Your task to perform on an android device: Open settings on Google Maps Image 0: 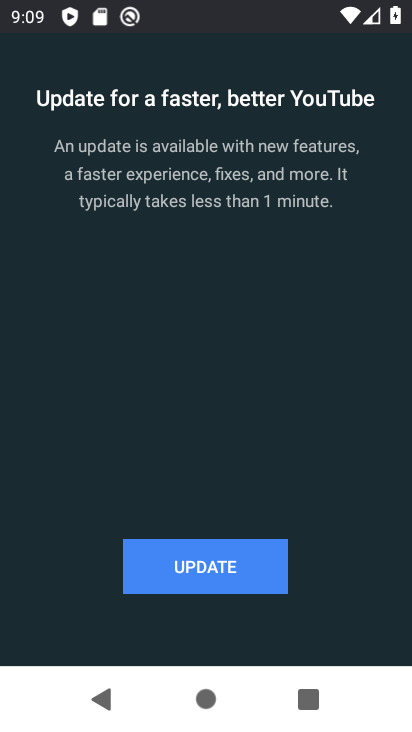
Step 0: press back button
Your task to perform on an android device: Open settings on Google Maps Image 1: 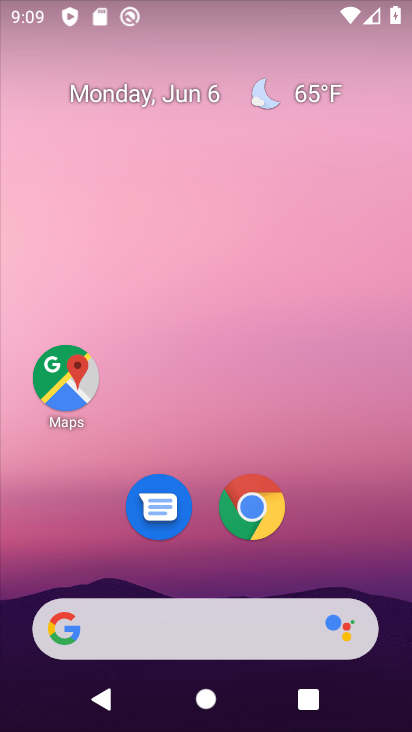
Step 1: click (66, 380)
Your task to perform on an android device: Open settings on Google Maps Image 2: 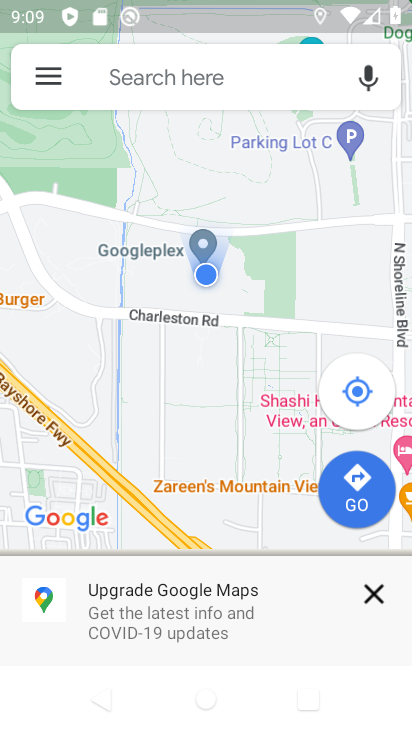
Step 2: click (36, 74)
Your task to perform on an android device: Open settings on Google Maps Image 3: 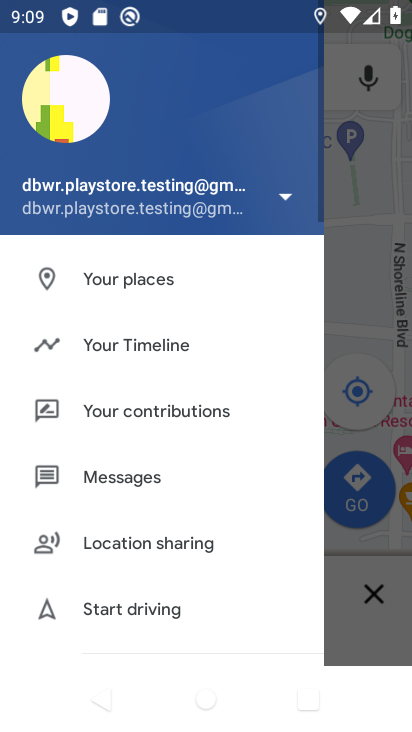
Step 3: drag from (182, 581) to (204, 279)
Your task to perform on an android device: Open settings on Google Maps Image 4: 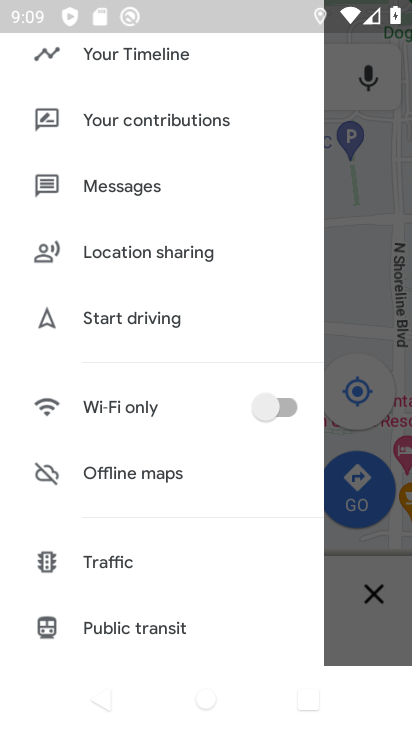
Step 4: drag from (150, 594) to (172, 345)
Your task to perform on an android device: Open settings on Google Maps Image 5: 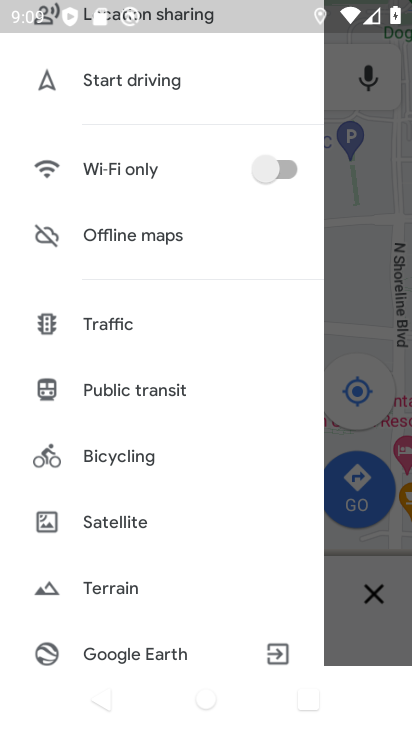
Step 5: drag from (101, 634) to (161, 355)
Your task to perform on an android device: Open settings on Google Maps Image 6: 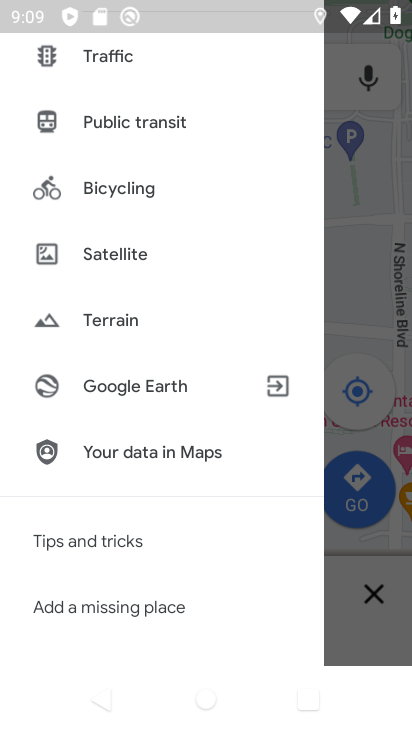
Step 6: drag from (154, 626) to (212, 288)
Your task to perform on an android device: Open settings on Google Maps Image 7: 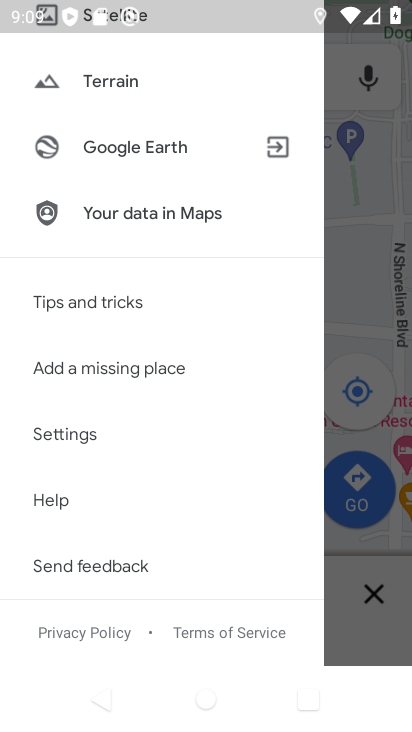
Step 7: click (105, 419)
Your task to perform on an android device: Open settings on Google Maps Image 8: 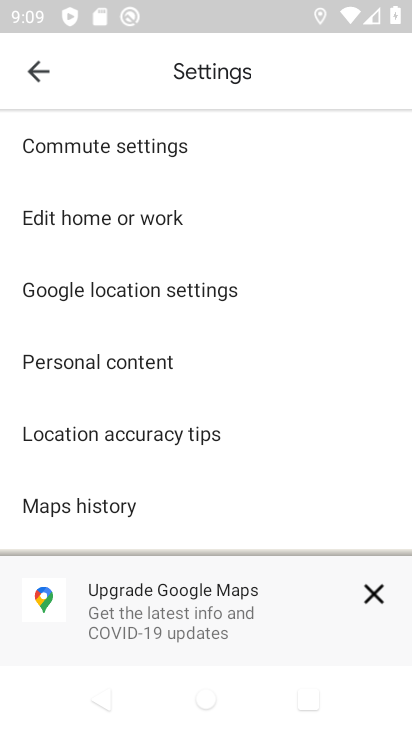
Step 8: click (358, 593)
Your task to perform on an android device: Open settings on Google Maps Image 9: 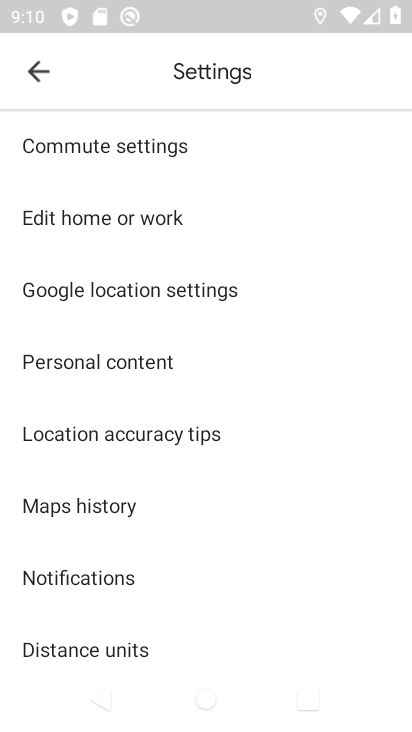
Step 9: task complete